Your task to perform on an android device: check android version Image 0: 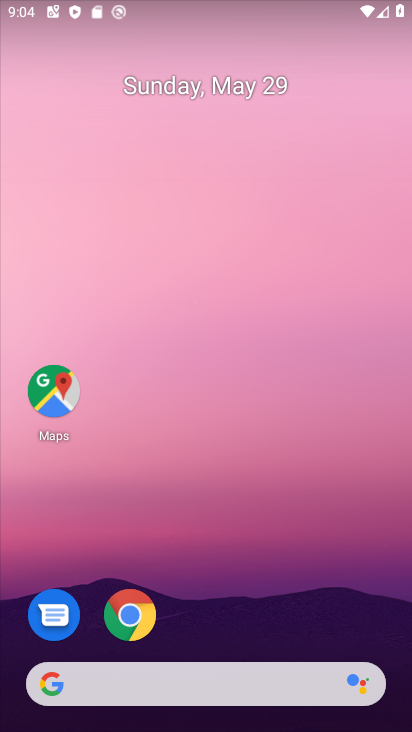
Step 0: drag from (256, 623) to (250, 7)
Your task to perform on an android device: check android version Image 1: 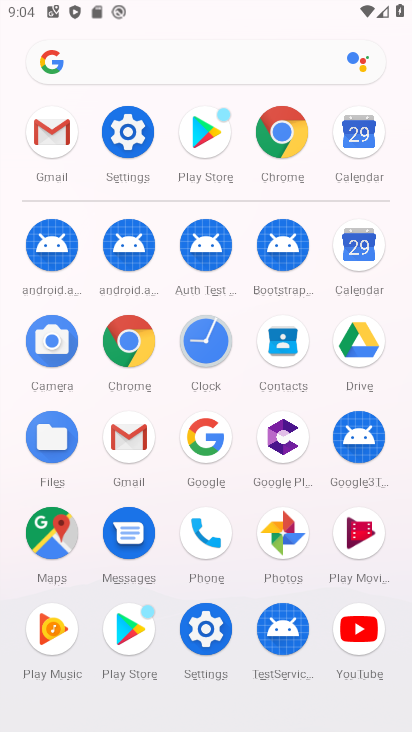
Step 1: click (123, 137)
Your task to perform on an android device: check android version Image 2: 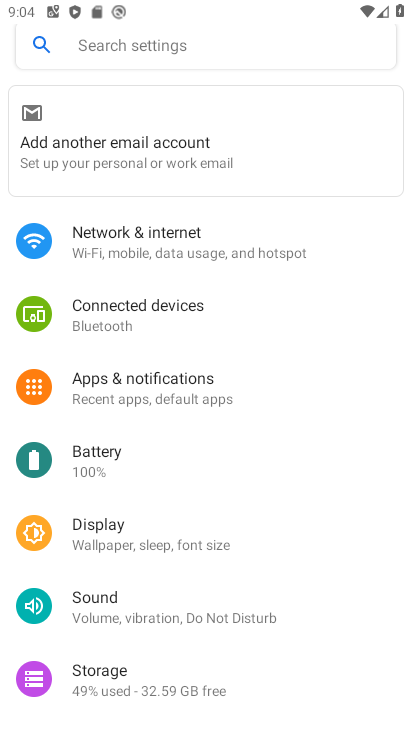
Step 2: drag from (190, 600) to (215, 173)
Your task to perform on an android device: check android version Image 3: 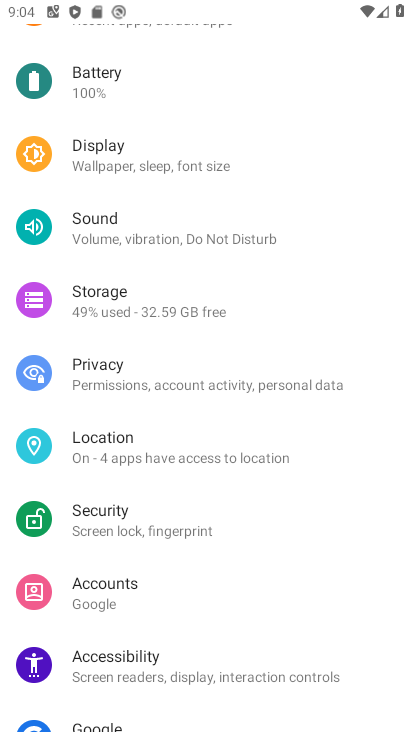
Step 3: drag from (174, 615) to (84, 119)
Your task to perform on an android device: check android version Image 4: 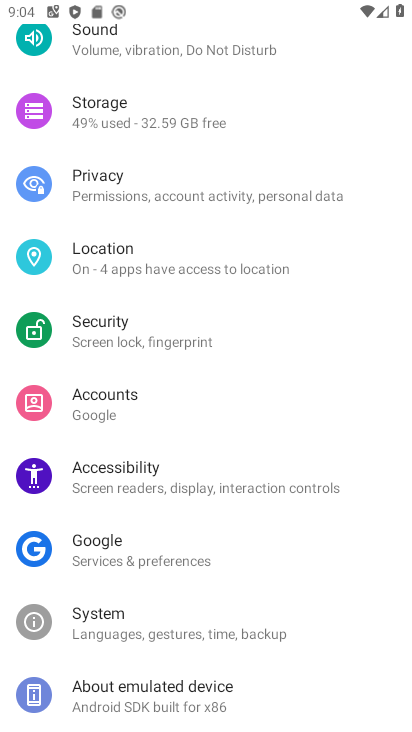
Step 4: click (107, 691)
Your task to perform on an android device: check android version Image 5: 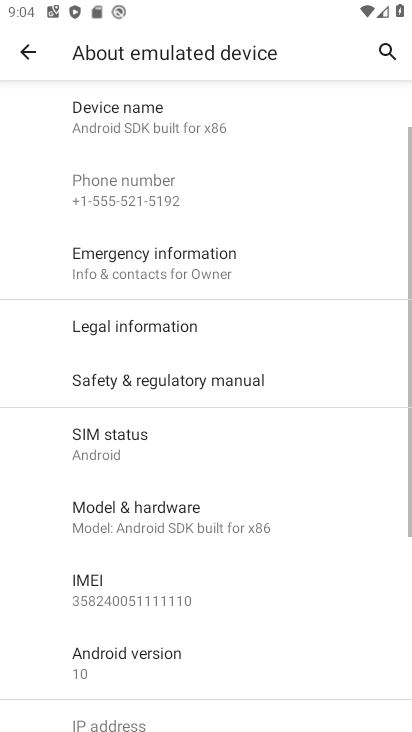
Step 5: click (152, 666)
Your task to perform on an android device: check android version Image 6: 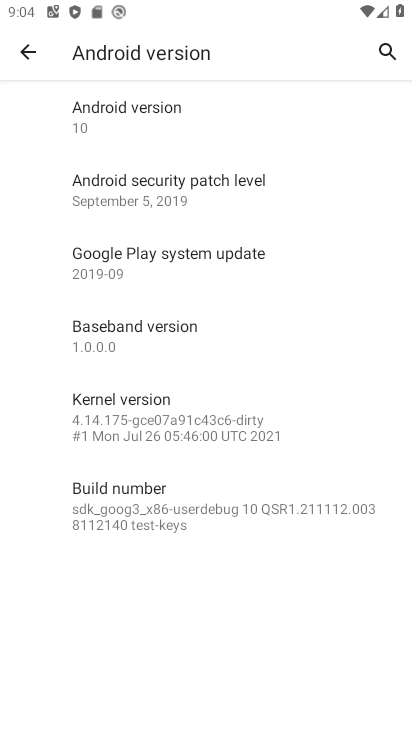
Step 6: click (117, 128)
Your task to perform on an android device: check android version Image 7: 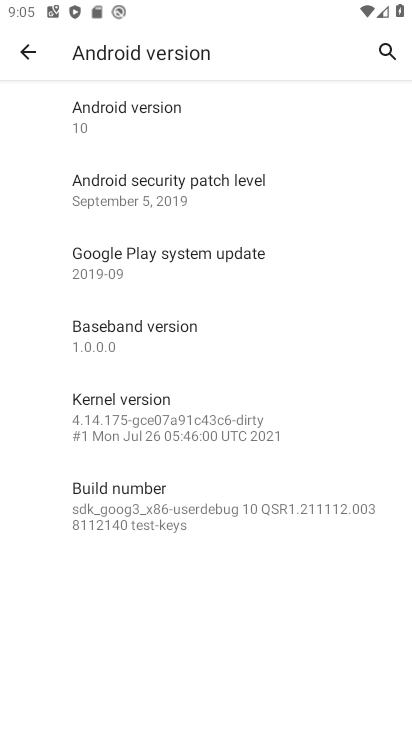
Step 7: click (142, 120)
Your task to perform on an android device: check android version Image 8: 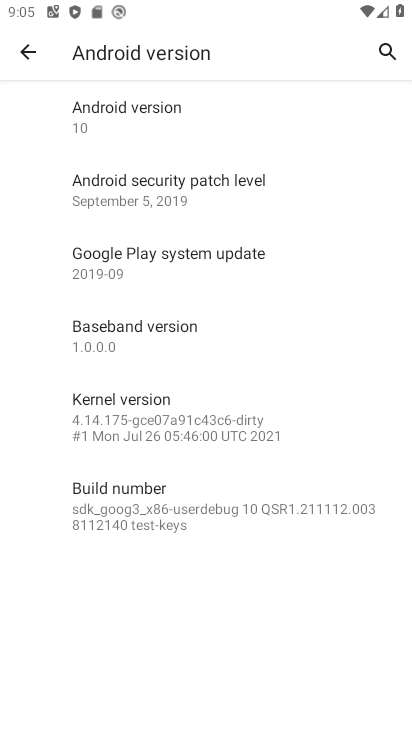
Step 8: task complete